Your task to perform on an android device: toggle show notifications on the lock screen Image 0: 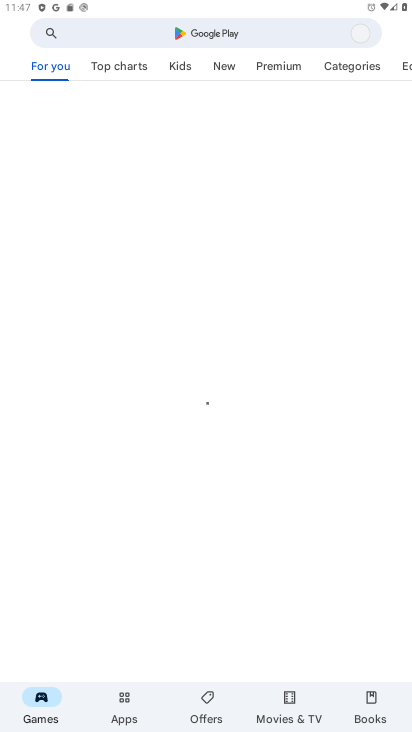
Step 0: press home button
Your task to perform on an android device: toggle show notifications on the lock screen Image 1: 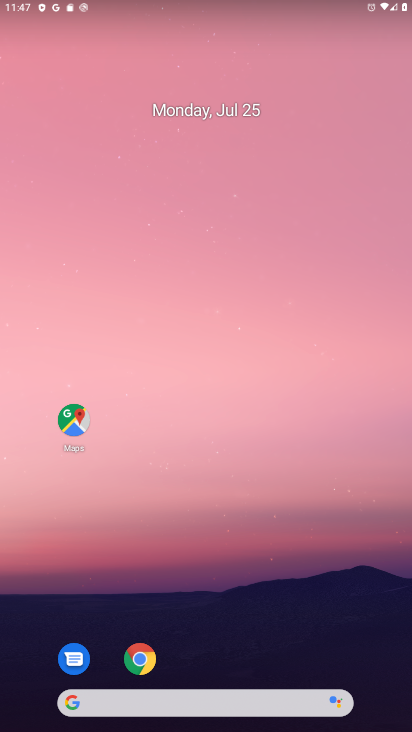
Step 1: drag from (240, 599) to (181, 6)
Your task to perform on an android device: toggle show notifications on the lock screen Image 2: 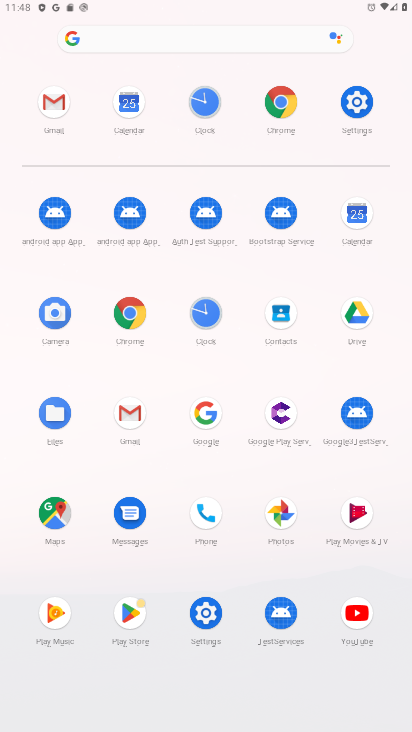
Step 2: click (356, 102)
Your task to perform on an android device: toggle show notifications on the lock screen Image 3: 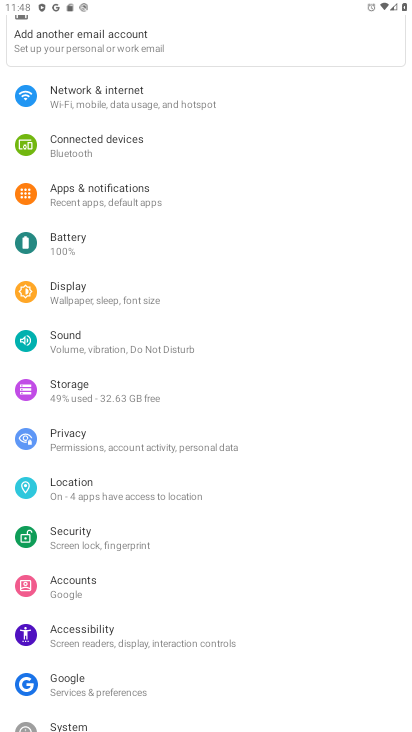
Step 3: click (90, 188)
Your task to perform on an android device: toggle show notifications on the lock screen Image 4: 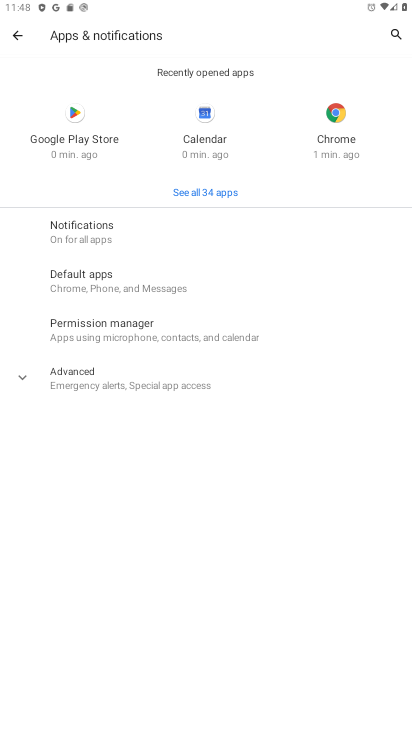
Step 4: click (73, 223)
Your task to perform on an android device: toggle show notifications on the lock screen Image 5: 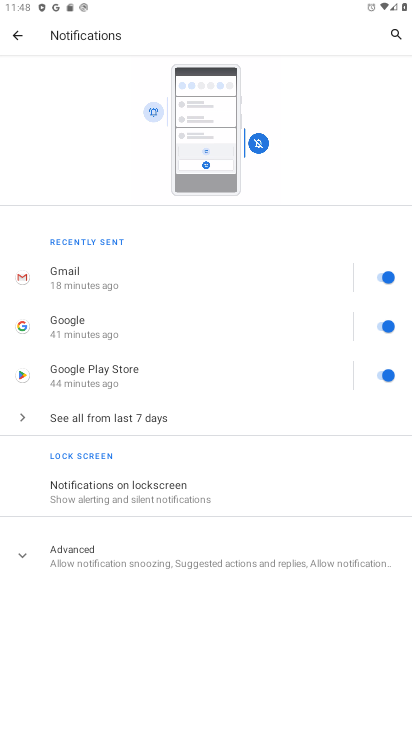
Step 5: click (147, 488)
Your task to perform on an android device: toggle show notifications on the lock screen Image 6: 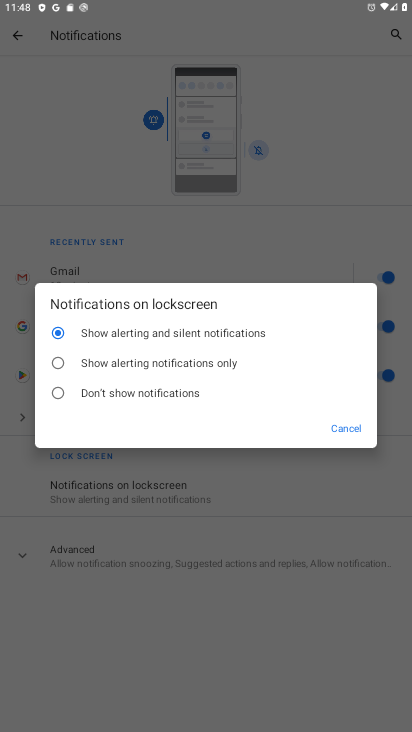
Step 6: click (56, 391)
Your task to perform on an android device: toggle show notifications on the lock screen Image 7: 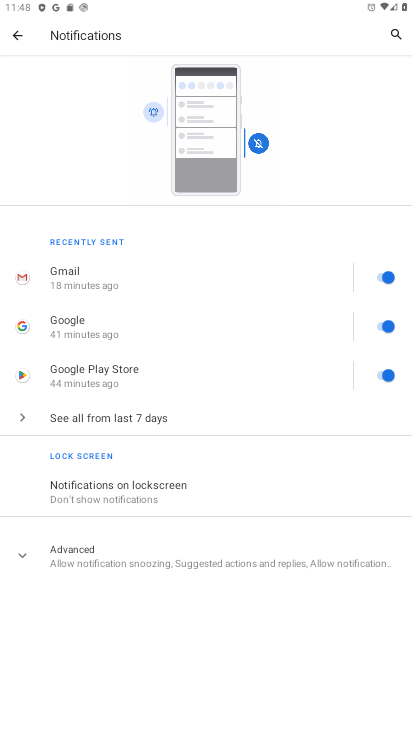
Step 7: task complete